Your task to perform on an android device: change the clock display to digital Image 0: 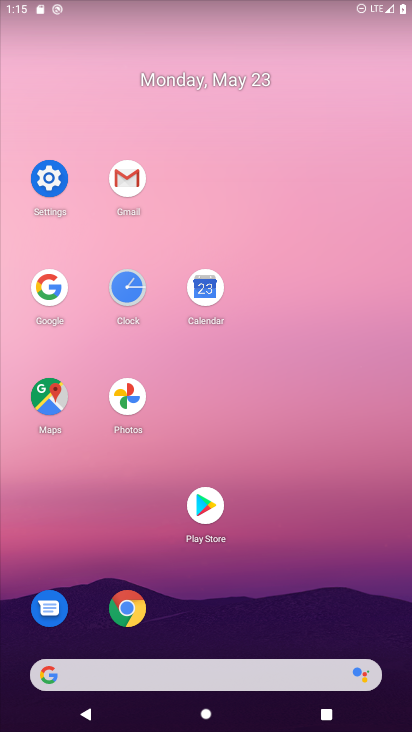
Step 0: click (134, 285)
Your task to perform on an android device: change the clock display to digital Image 1: 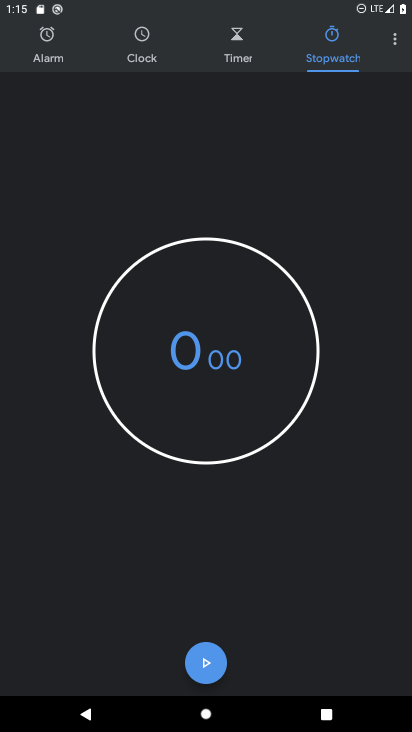
Step 1: click (395, 52)
Your task to perform on an android device: change the clock display to digital Image 2: 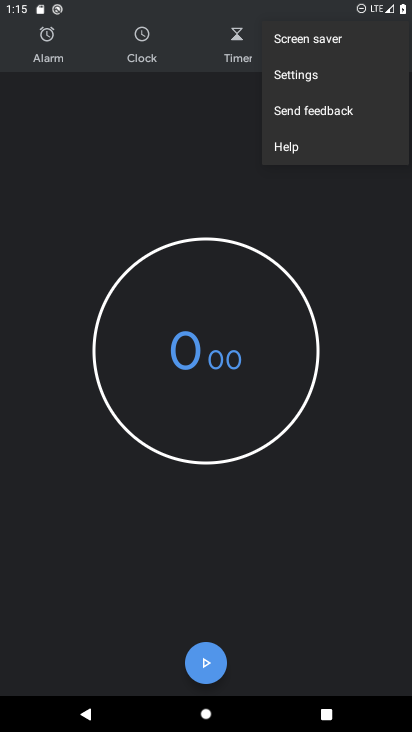
Step 2: click (298, 67)
Your task to perform on an android device: change the clock display to digital Image 3: 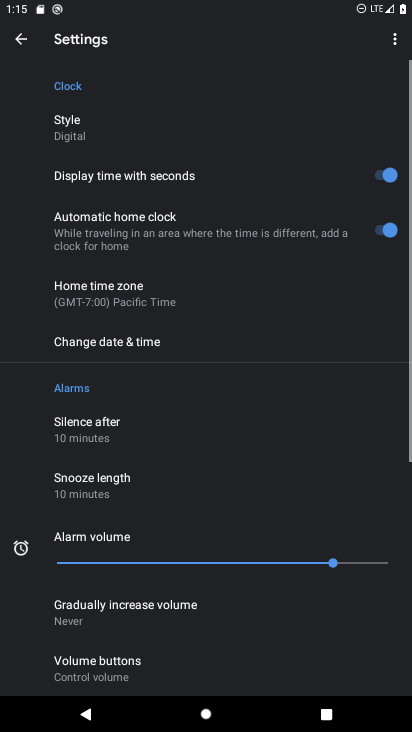
Step 3: click (117, 132)
Your task to perform on an android device: change the clock display to digital Image 4: 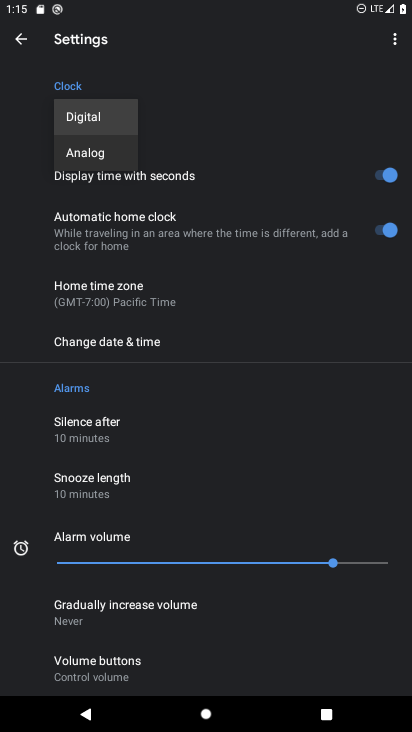
Step 4: task complete